Your task to perform on an android device: turn pop-ups on in chrome Image 0: 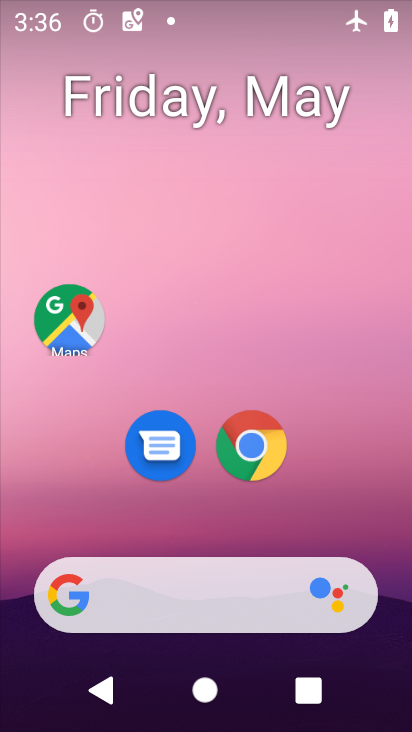
Step 0: drag from (223, 541) to (270, 261)
Your task to perform on an android device: turn pop-ups on in chrome Image 1: 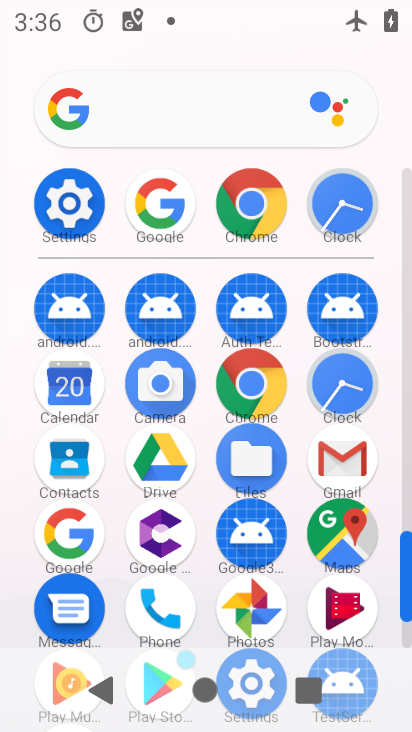
Step 1: click (270, 217)
Your task to perform on an android device: turn pop-ups on in chrome Image 2: 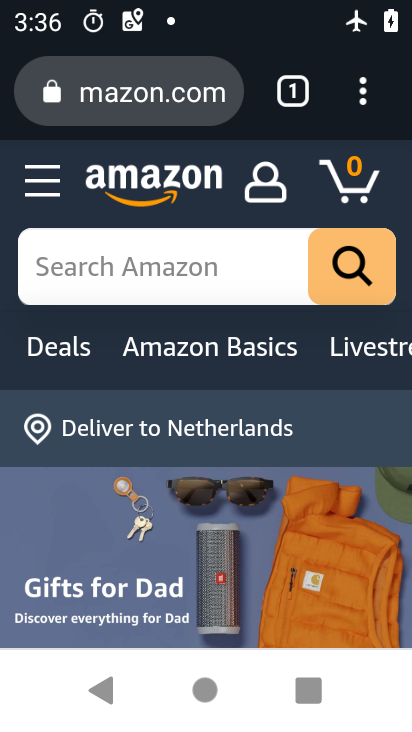
Step 2: click (364, 98)
Your task to perform on an android device: turn pop-ups on in chrome Image 3: 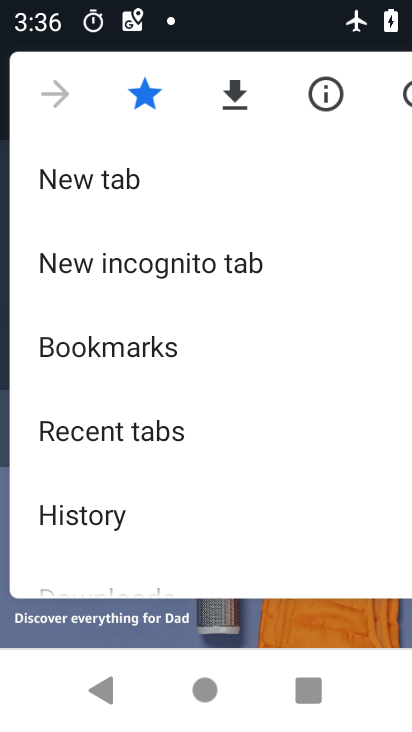
Step 3: drag from (249, 354) to (251, 244)
Your task to perform on an android device: turn pop-ups on in chrome Image 4: 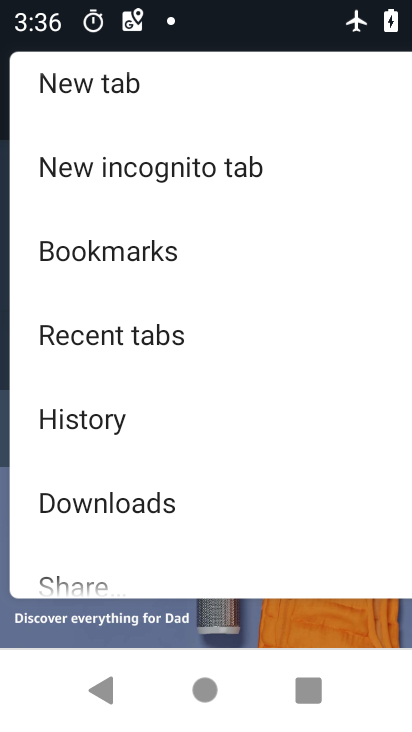
Step 4: drag from (277, 413) to (280, 242)
Your task to perform on an android device: turn pop-ups on in chrome Image 5: 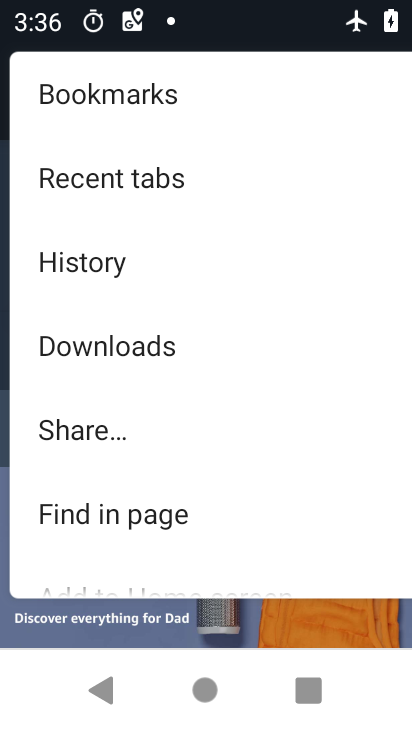
Step 5: drag from (242, 479) to (253, 261)
Your task to perform on an android device: turn pop-ups on in chrome Image 6: 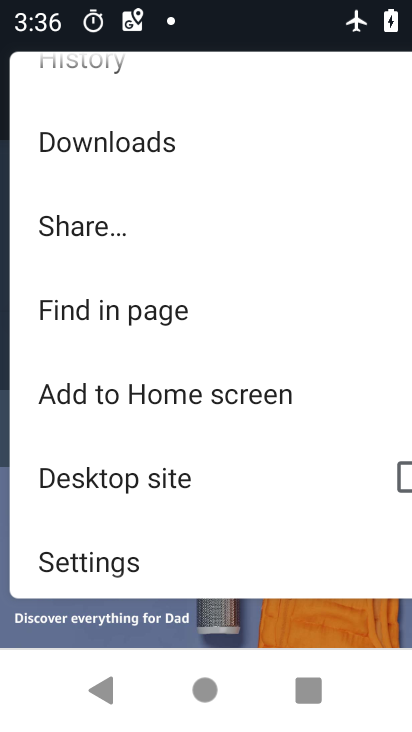
Step 6: drag from (262, 481) to (253, 278)
Your task to perform on an android device: turn pop-ups on in chrome Image 7: 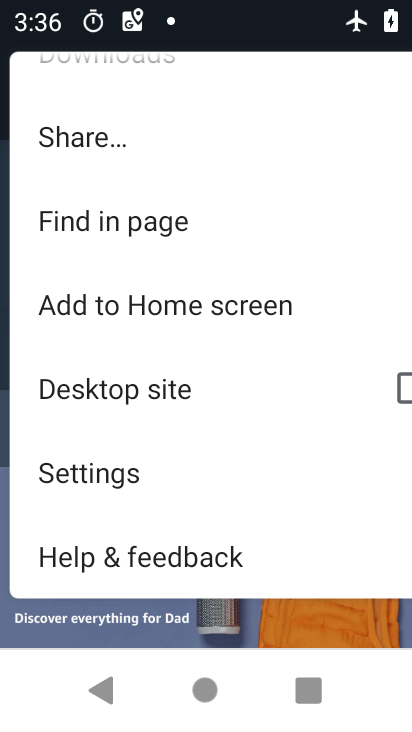
Step 7: click (164, 488)
Your task to perform on an android device: turn pop-ups on in chrome Image 8: 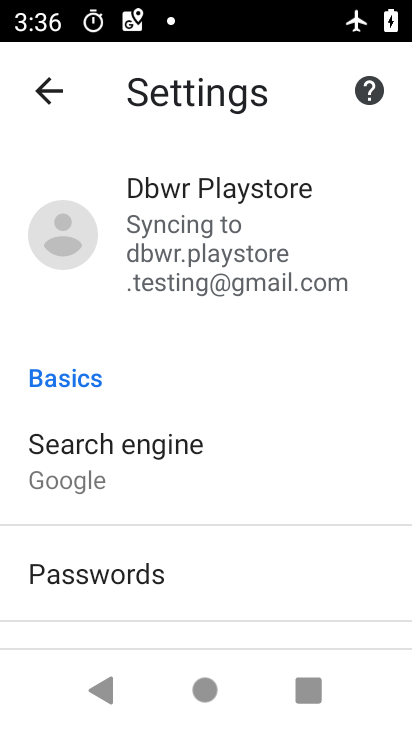
Step 8: drag from (175, 563) to (326, 196)
Your task to perform on an android device: turn pop-ups on in chrome Image 9: 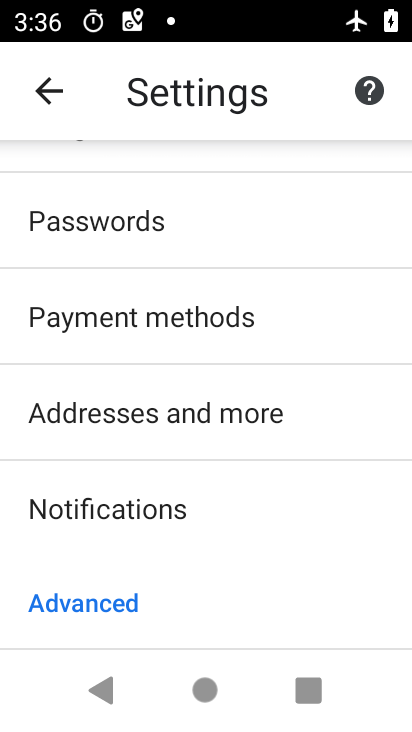
Step 9: drag from (210, 540) to (315, 220)
Your task to perform on an android device: turn pop-ups on in chrome Image 10: 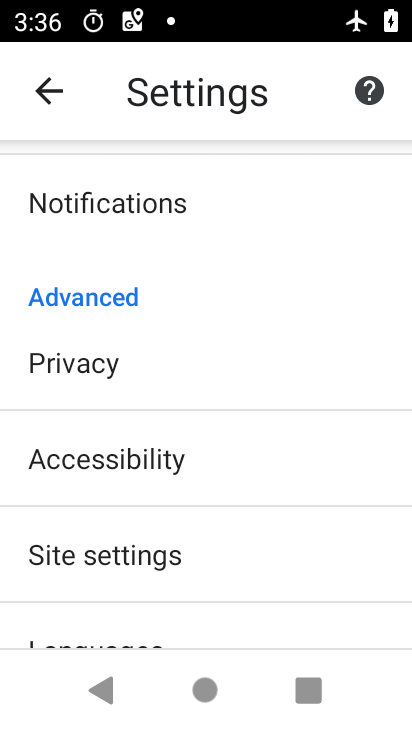
Step 10: drag from (197, 514) to (254, 360)
Your task to perform on an android device: turn pop-ups on in chrome Image 11: 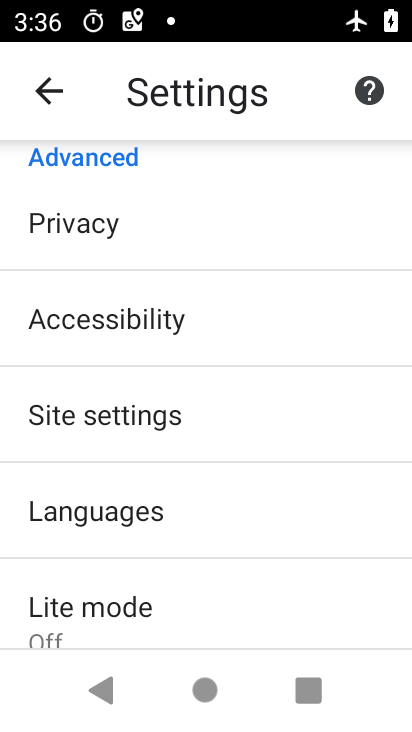
Step 11: click (135, 410)
Your task to perform on an android device: turn pop-ups on in chrome Image 12: 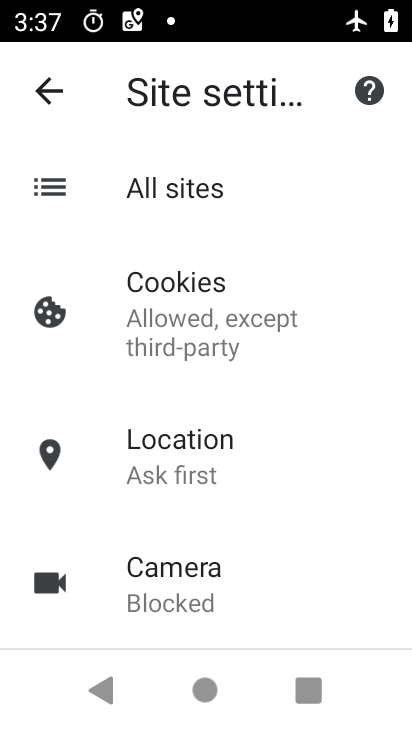
Step 12: drag from (160, 524) to (282, 217)
Your task to perform on an android device: turn pop-ups on in chrome Image 13: 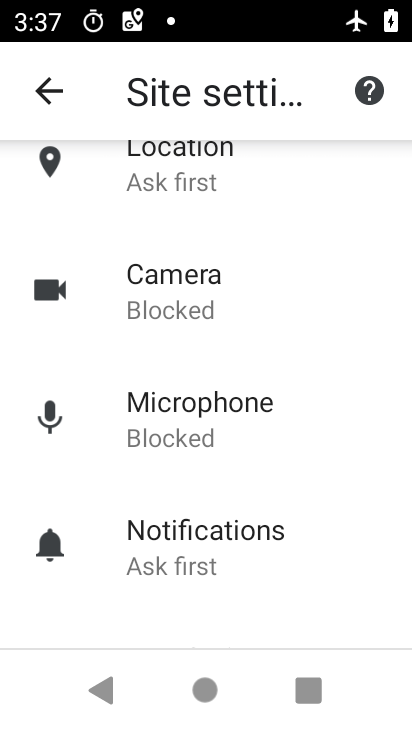
Step 13: drag from (191, 381) to (243, 214)
Your task to perform on an android device: turn pop-ups on in chrome Image 14: 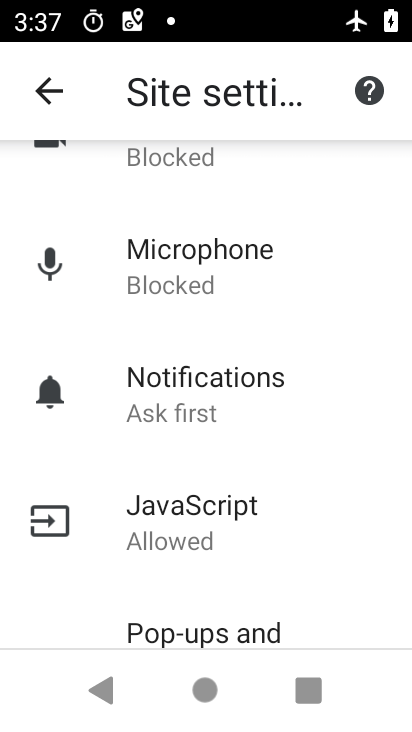
Step 14: drag from (201, 508) to (248, 286)
Your task to perform on an android device: turn pop-ups on in chrome Image 15: 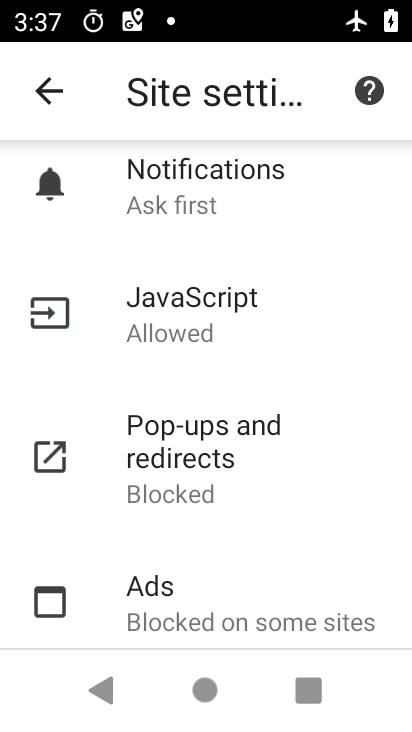
Step 15: click (234, 450)
Your task to perform on an android device: turn pop-ups on in chrome Image 16: 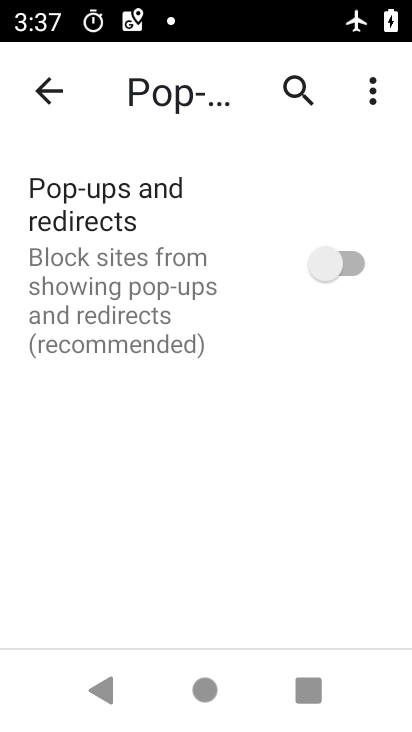
Step 16: click (299, 284)
Your task to perform on an android device: turn pop-ups on in chrome Image 17: 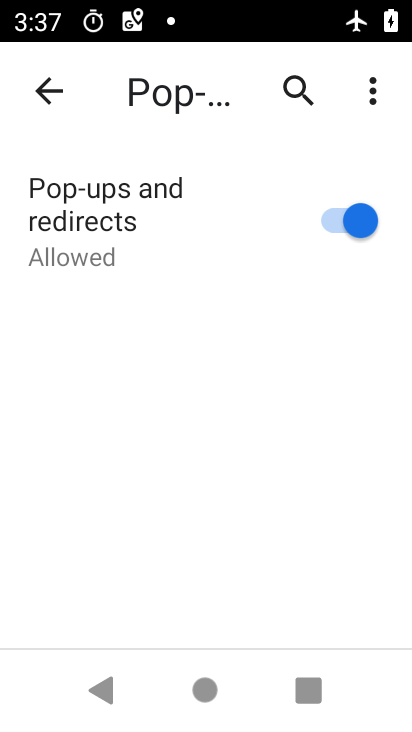
Step 17: task complete